Your task to perform on an android device: turn on wifi Image 0: 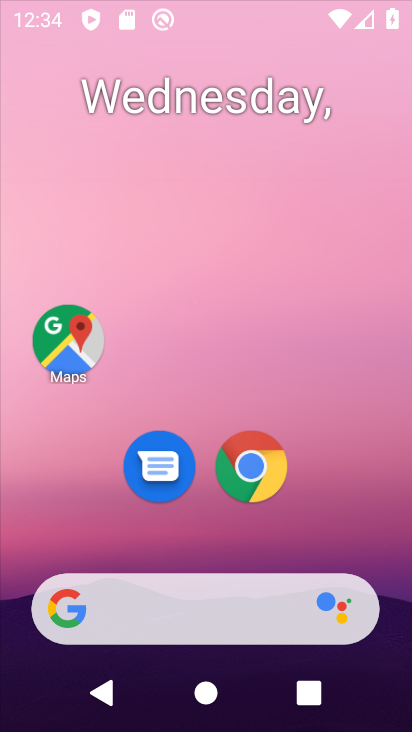
Step 0: press home button
Your task to perform on an android device: turn on wifi Image 1: 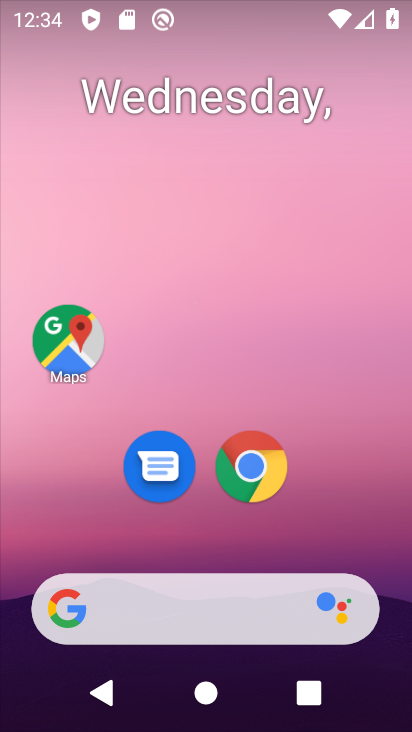
Step 1: drag from (349, 468) to (345, 25)
Your task to perform on an android device: turn on wifi Image 2: 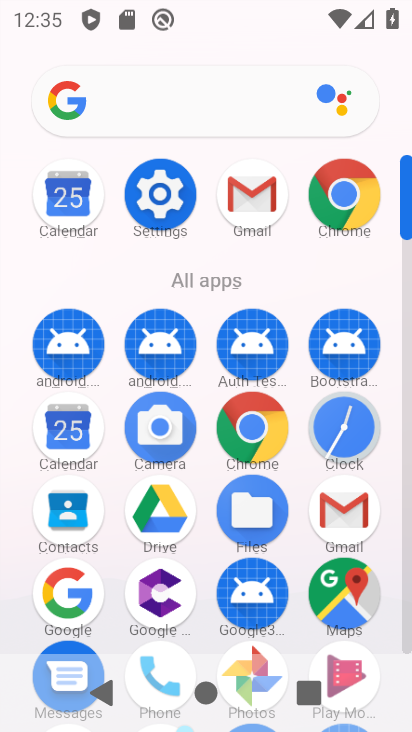
Step 2: drag from (257, 0) to (237, 263)
Your task to perform on an android device: turn on wifi Image 3: 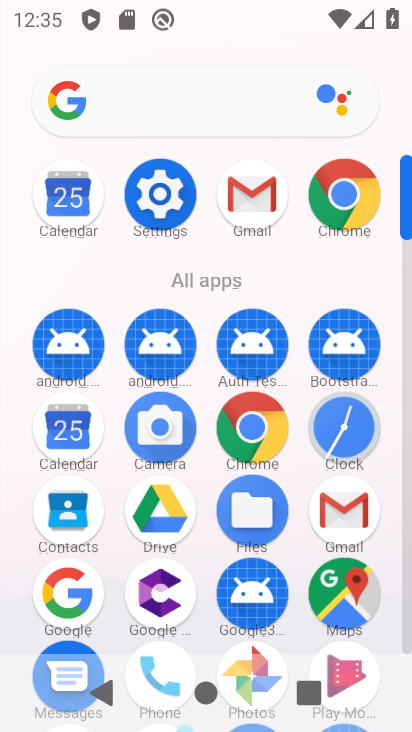
Step 3: drag from (337, 0) to (333, 223)
Your task to perform on an android device: turn on wifi Image 4: 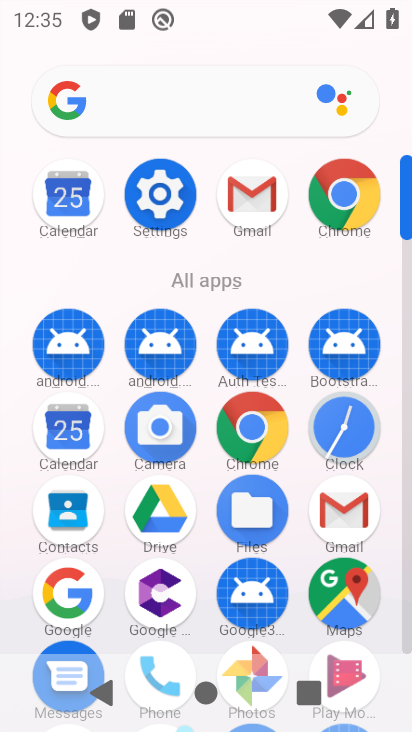
Step 4: drag from (314, 13) to (213, 651)
Your task to perform on an android device: turn on wifi Image 5: 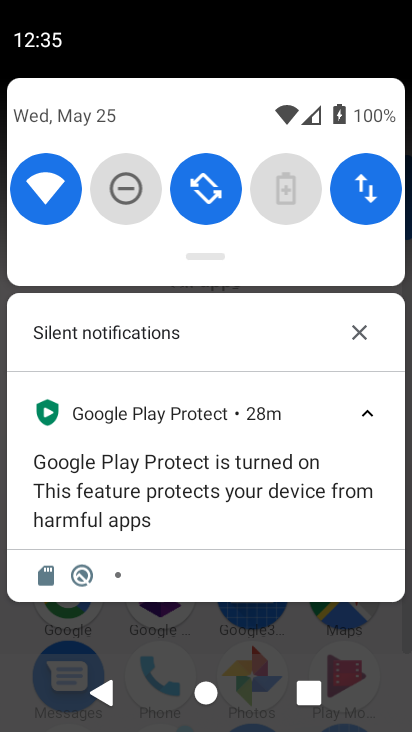
Step 5: click (69, 194)
Your task to perform on an android device: turn on wifi Image 6: 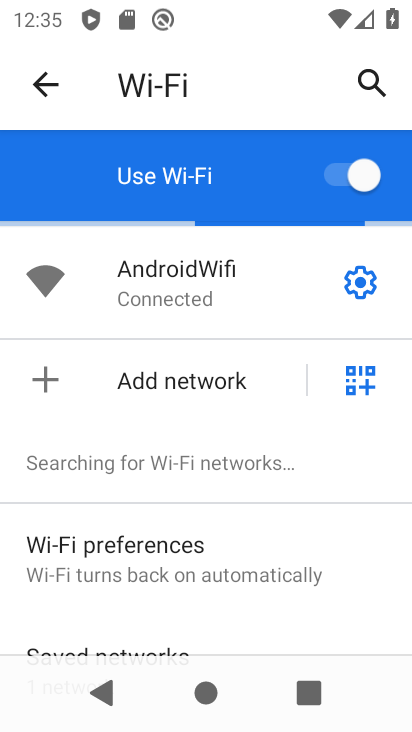
Step 6: task complete